Your task to perform on an android device: change text size in settings app Image 0: 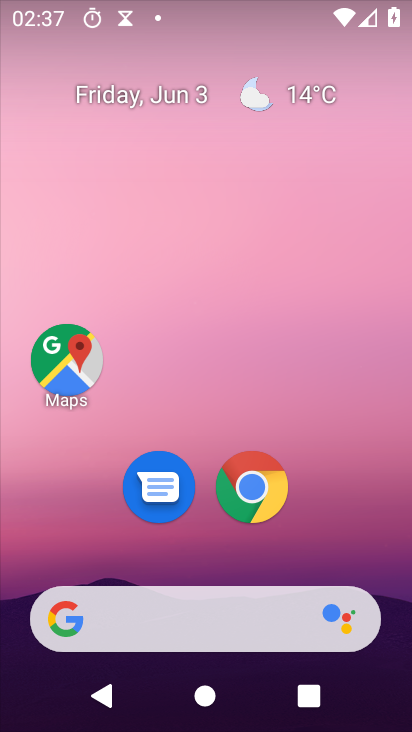
Step 0: drag from (329, 522) to (156, 91)
Your task to perform on an android device: change text size in settings app Image 1: 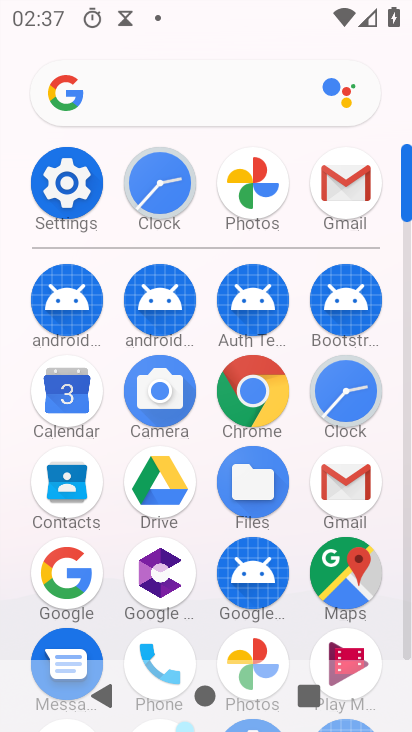
Step 1: click (78, 192)
Your task to perform on an android device: change text size in settings app Image 2: 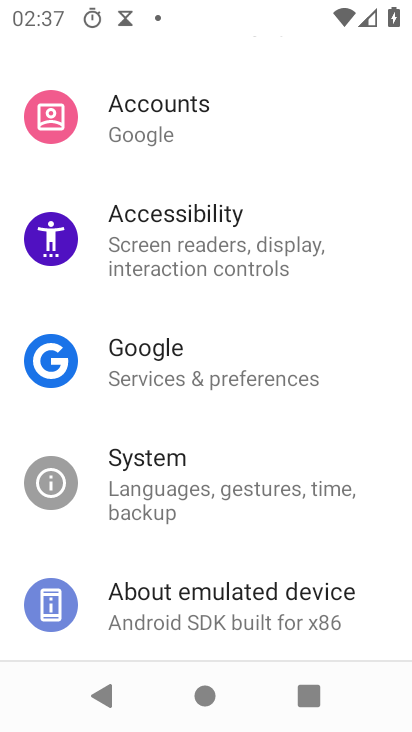
Step 2: drag from (254, 532) to (218, 101)
Your task to perform on an android device: change text size in settings app Image 3: 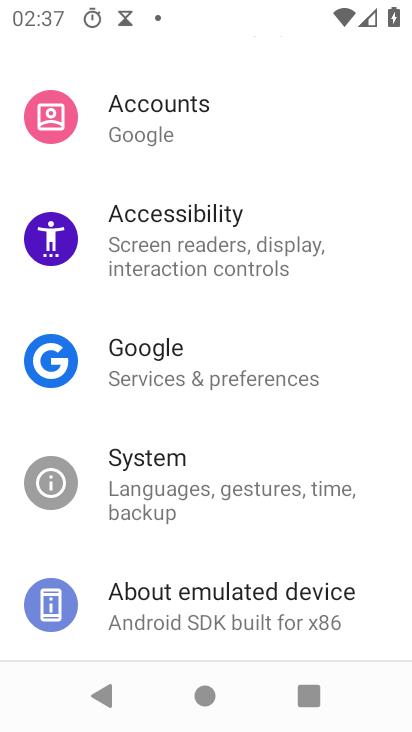
Step 3: drag from (230, 237) to (208, 699)
Your task to perform on an android device: change text size in settings app Image 4: 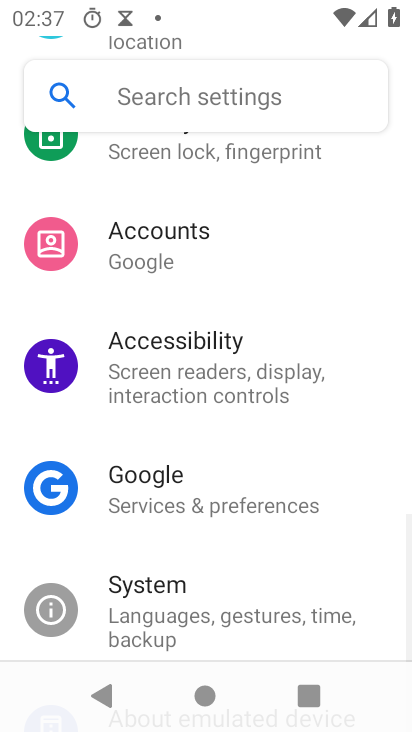
Step 4: drag from (238, 153) to (230, 632)
Your task to perform on an android device: change text size in settings app Image 5: 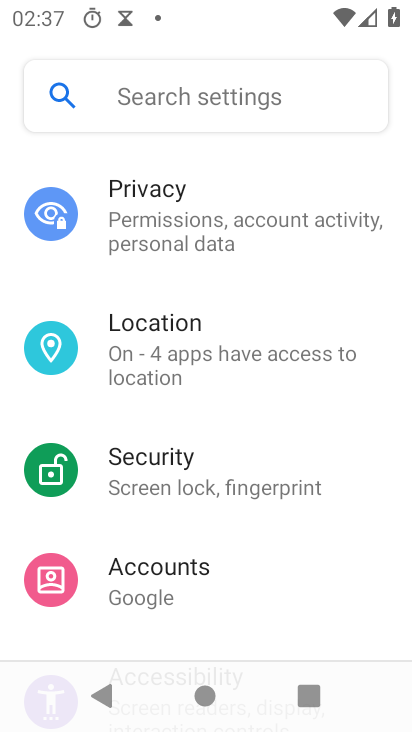
Step 5: drag from (253, 237) to (217, 640)
Your task to perform on an android device: change text size in settings app Image 6: 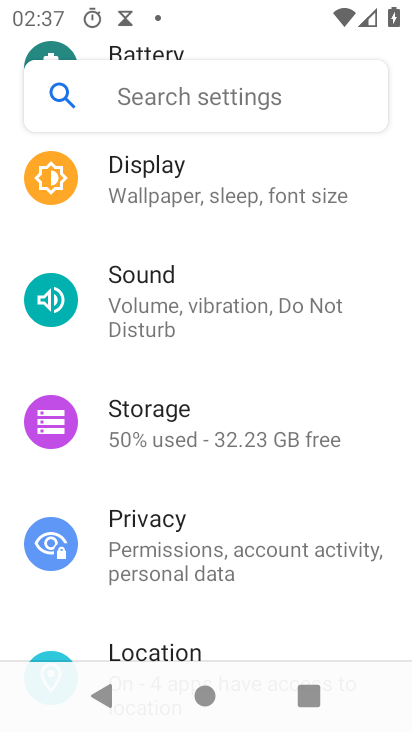
Step 6: click (206, 210)
Your task to perform on an android device: change text size in settings app Image 7: 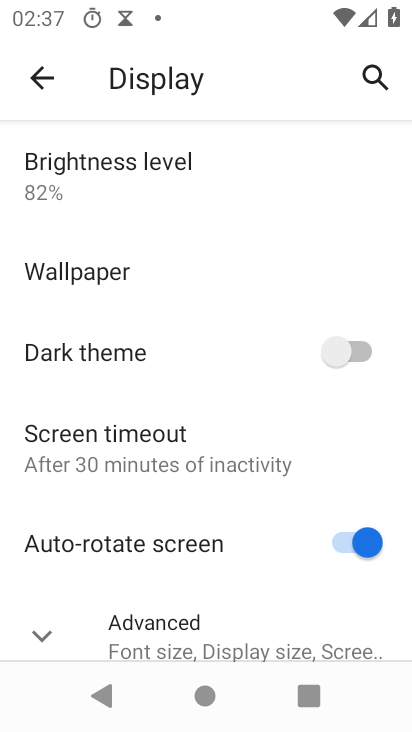
Step 7: click (237, 640)
Your task to perform on an android device: change text size in settings app Image 8: 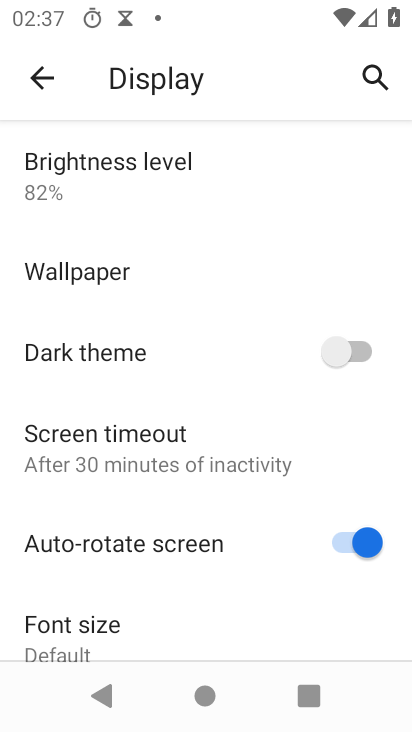
Step 8: click (135, 634)
Your task to perform on an android device: change text size in settings app Image 9: 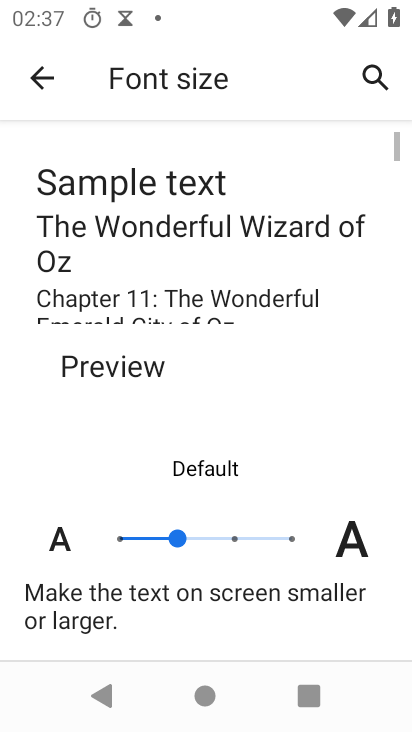
Step 9: drag from (262, 535) to (218, 220)
Your task to perform on an android device: change text size in settings app Image 10: 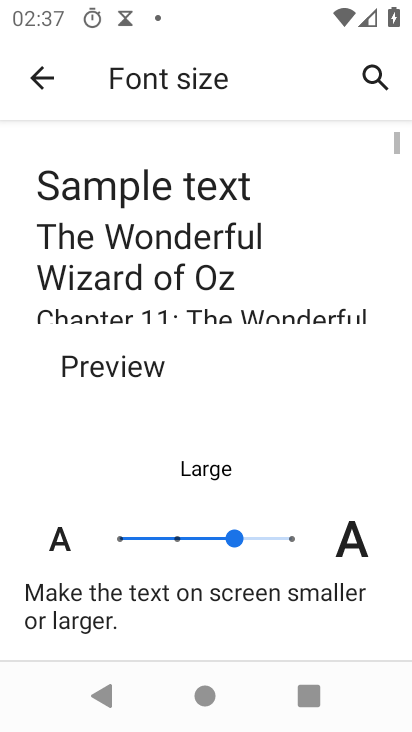
Step 10: click (118, 538)
Your task to perform on an android device: change text size in settings app Image 11: 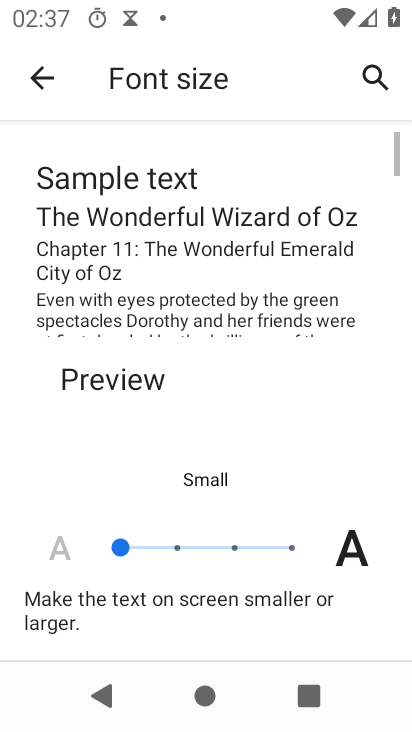
Step 11: task complete